Your task to perform on an android device: change the clock display to show seconds Image 0: 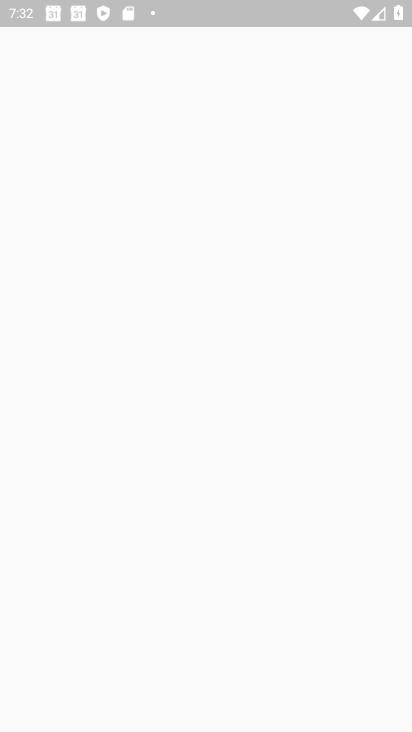
Step 0: press home button
Your task to perform on an android device: change the clock display to show seconds Image 1: 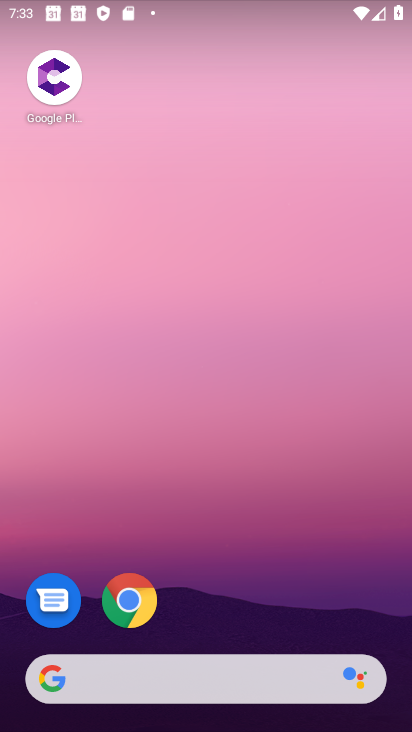
Step 1: drag from (211, 599) to (210, 173)
Your task to perform on an android device: change the clock display to show seconds Image 2: 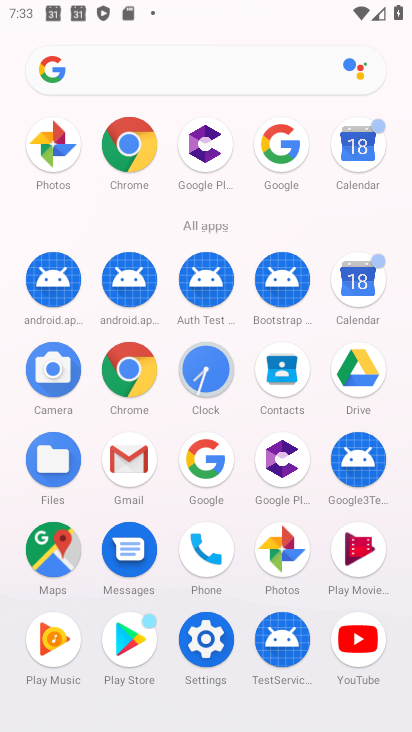
Step 2: click (207, 367)
Your task to perform on an android device: change the clock display to show seconds Image 3: 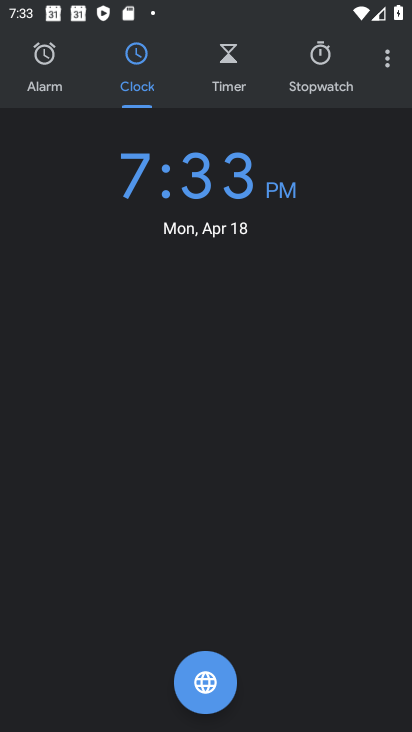
Step 3: click (388, 66)
Your task to perform on an android device: change the clock display to show seconds Image 4: 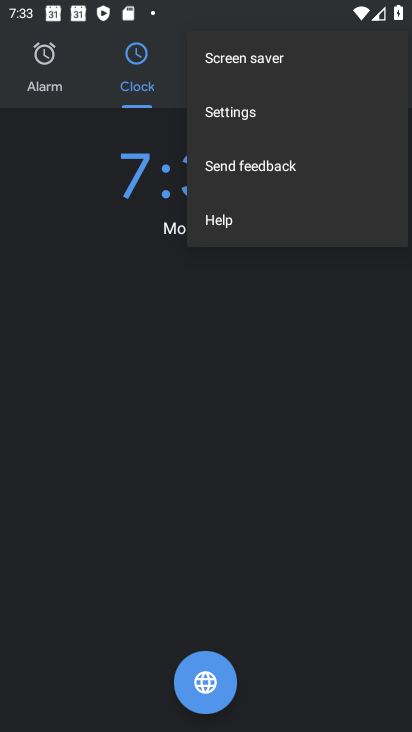
Step 4: click (274, 122)
Your task to perform on an android device: change the clock display to show seconds Image 5: 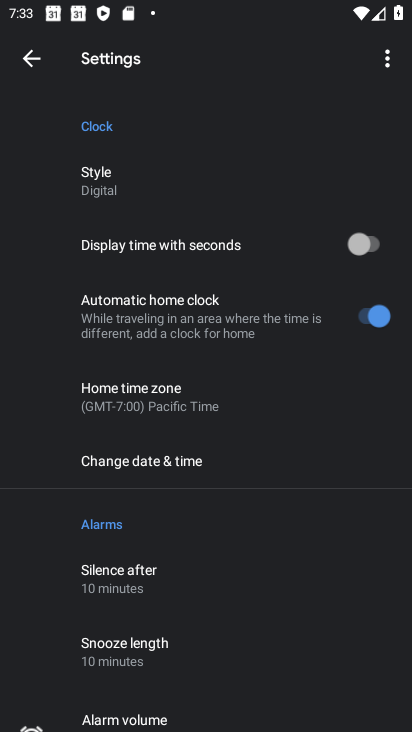
Step 5: click (351, 250)
Your task to perform on an android device: change the clock display to show seconds Image 6: 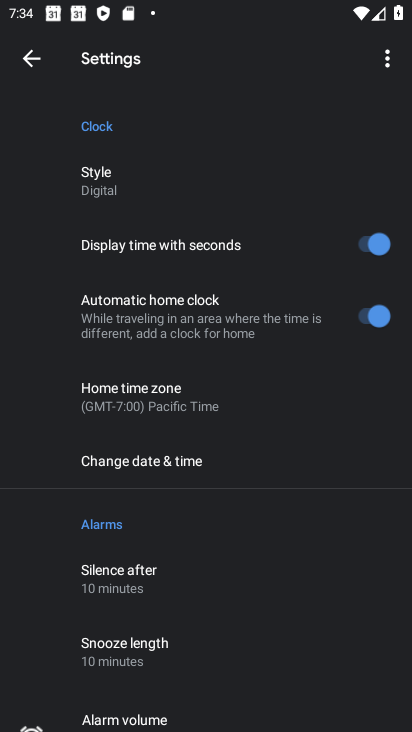
Step 6: task complete